Your task to perform on an android device: Show me productivity apps on the Play Store Image 0: 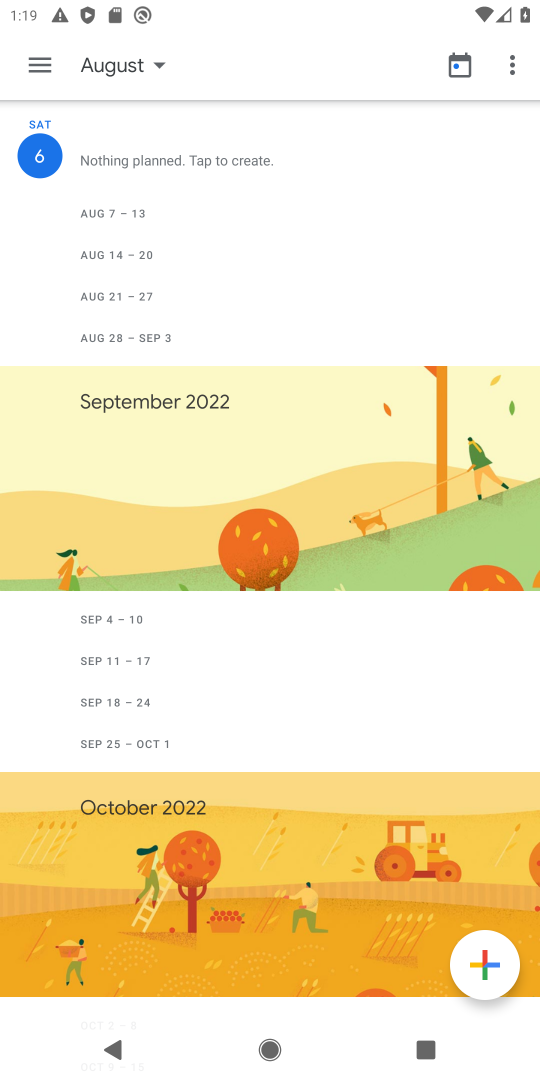
Step 0: press home button
Your task to perform on an android device: Show me productivity apps on the Play Store Image 1: 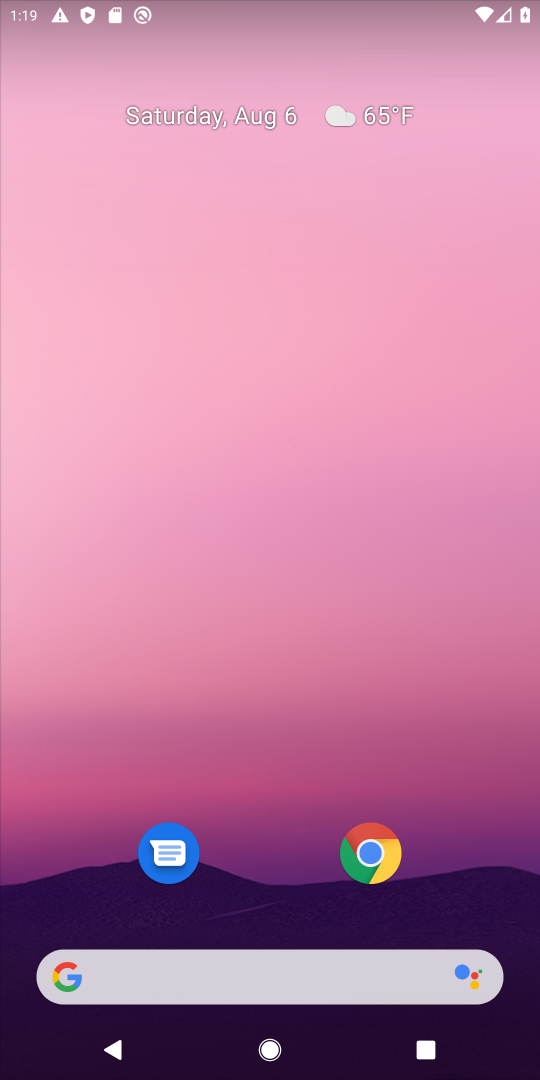
Step 1: drag from (492, 913) to (406, 109)
Your task to perform on an android device: Show me productivity apps on the Play Store Image 2: 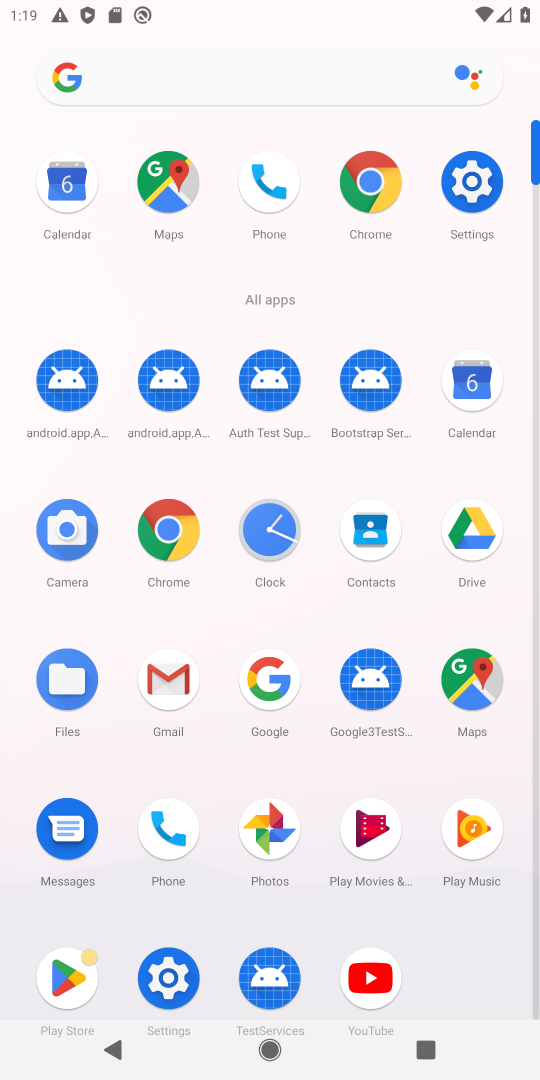
Step 2: click (68, 973)
Your task to perform on an android device: Show me productivity apps on the Play Store Image 3: 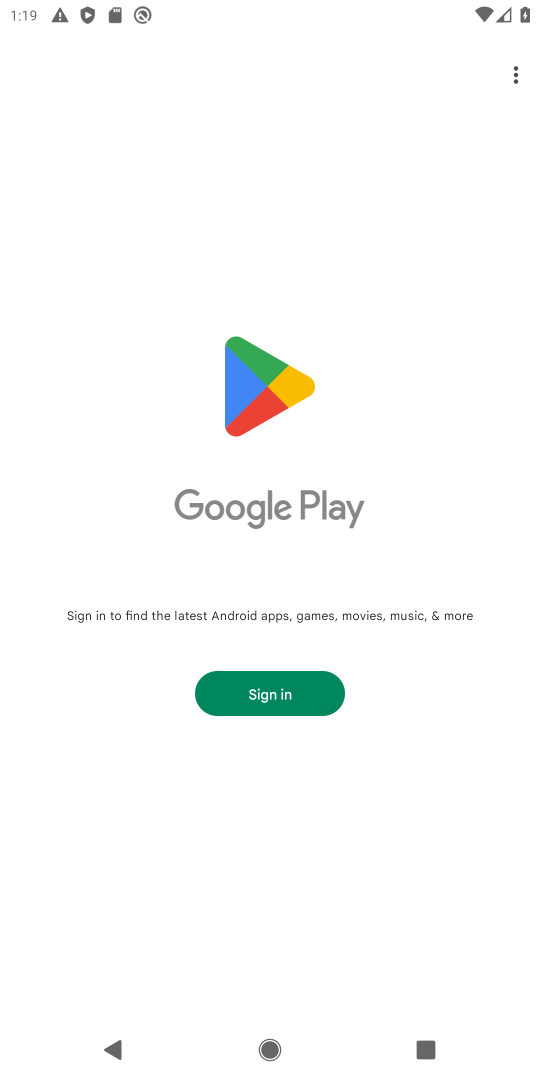
Step 3: task complete